Your task to perform on an android device: see creations saved in the google photos Image 0: 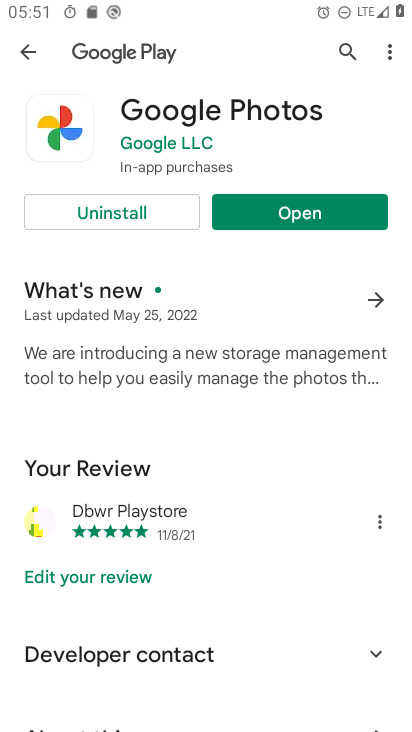
Step 0: press home button
Your task to perform on an android device: see creations saved in the google photos Image 1: 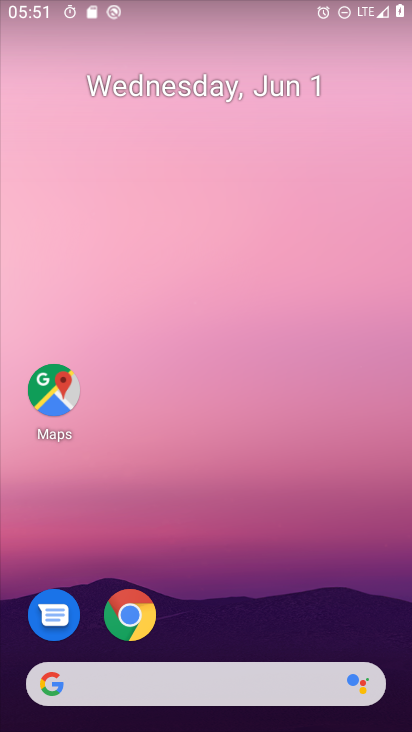
Step 1: drag from (262, 675) to (322, 28)
Your task to perform on an android device: see creations saved in the google photos Image 2: 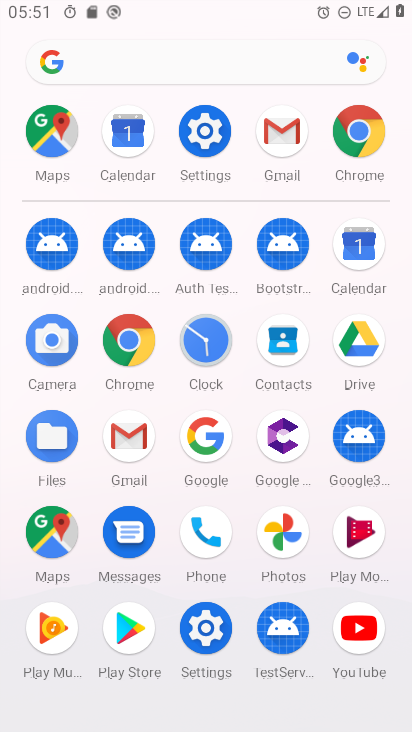
Step 2: click (292, 532)
Your task to perform on an android device: see creations saved in the google photos Image 3: 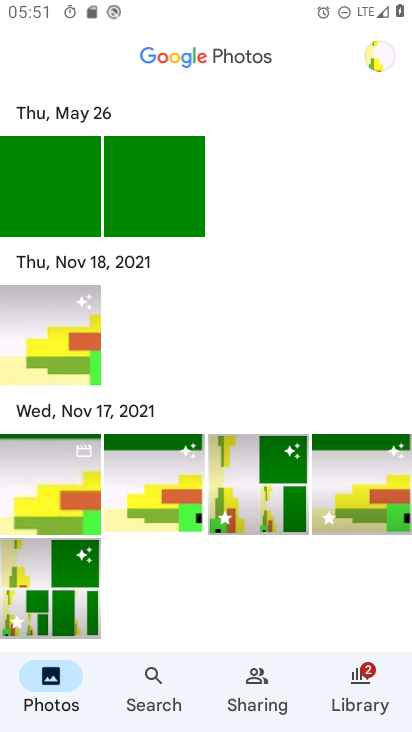
Step 3: click (373, 691)
Your task to perform on an android device: see creations saved in the google photos Image 4: 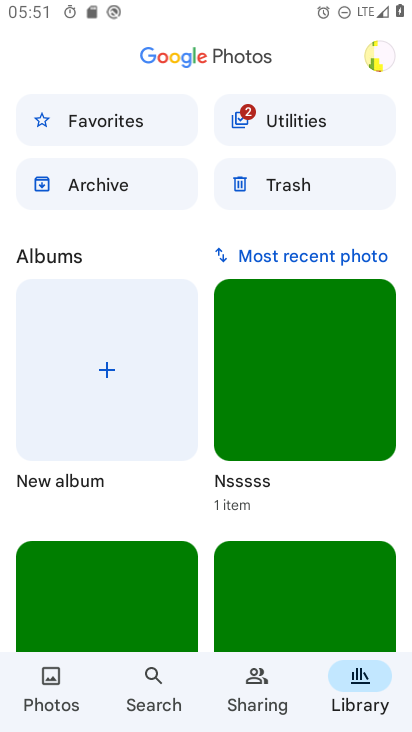
Step 4: task complete